Your task to perform on an android device: change alarm snooze length Image 0: 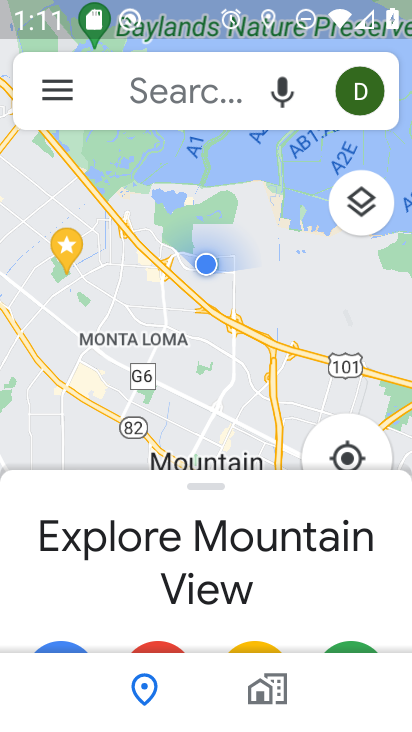
Step 0: press home button
Your task to perform on an android device: change alarm snooze length Image 1: 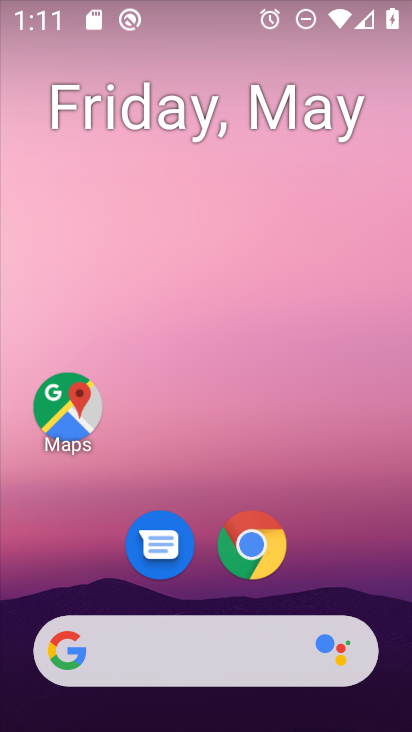
Step 1: drag from (330, 558) to (324, 211)
Your task to perform on an android device: change alarm snooze length Image 2: 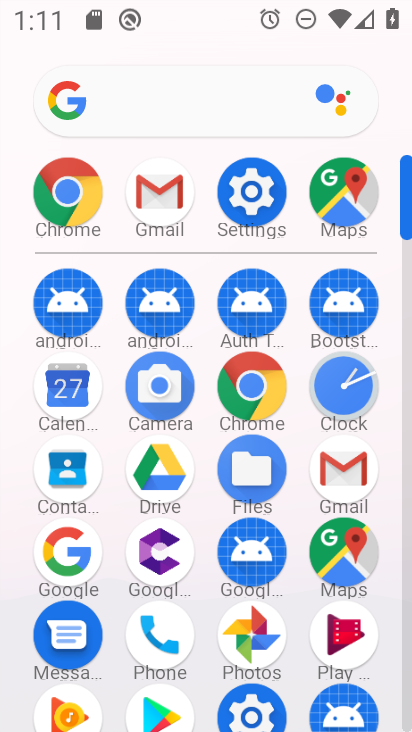
Step 2: click (333, 378)
Your task to perform on an android device: change alarm snooze length Image 3: 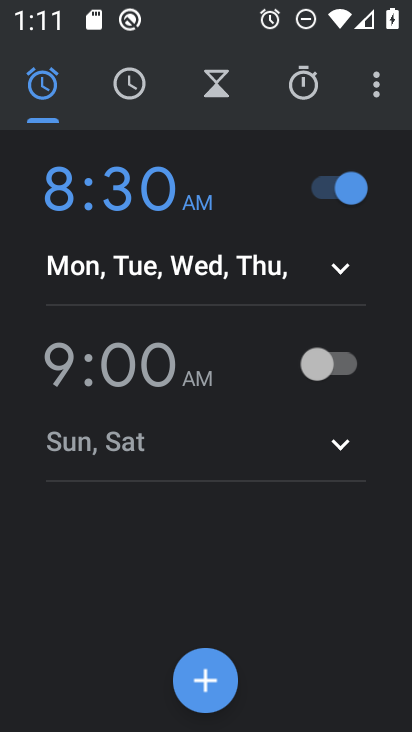
Step 3: click (367, 87)
Your task to perform on an android device: change alarm snooze length Image 4: 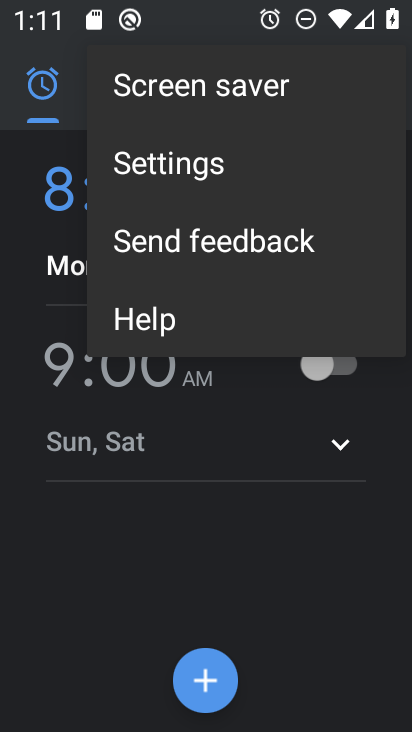
Step 4: click (204, 176)
Your task to perform on an android device: change alarm snooze length Image 5: 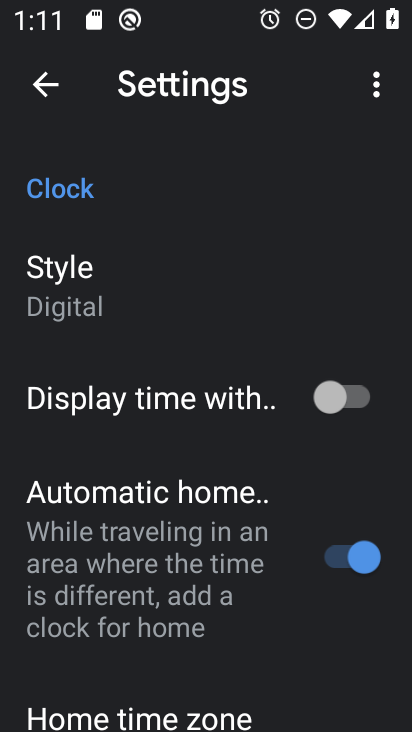
Step 5: drag from (191, 611) to (206, 262)
Your task to perform on an android device: change alarm snooze length Image 6: 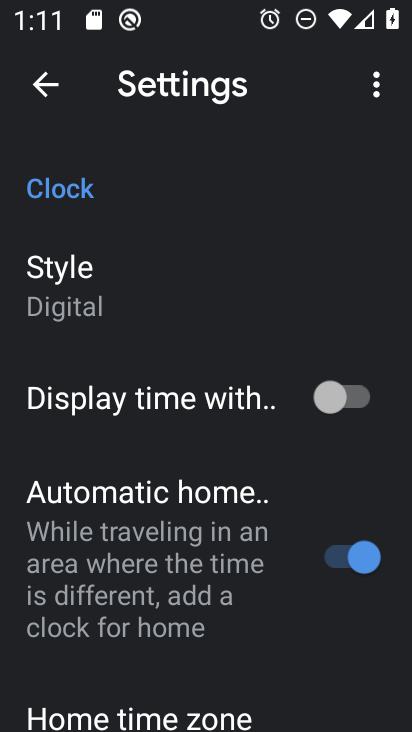
Step 6: drag from (157, 571) to (180, 280)
Your task to perform on an android device: change alarm snooze length Image 7: 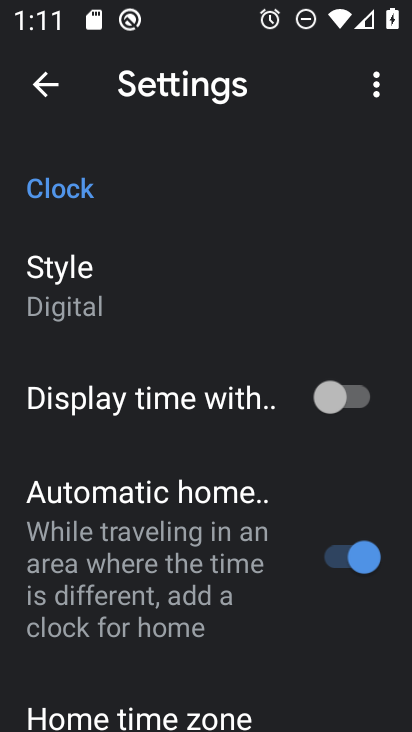
Step 7: drag from (175, 611) to (201, 234)
Your task to perform on an android device: change alarm snooze length Image 8: 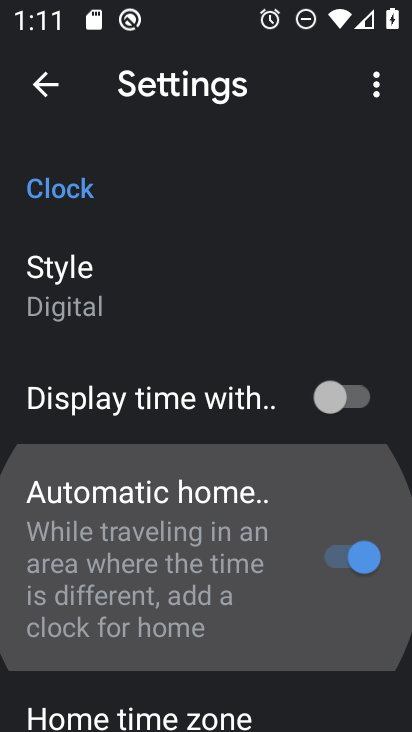
Step 8: drag from (176, 545) to (238, 193)
Your task to perform on an android device: change alarm snooze length Image 9: 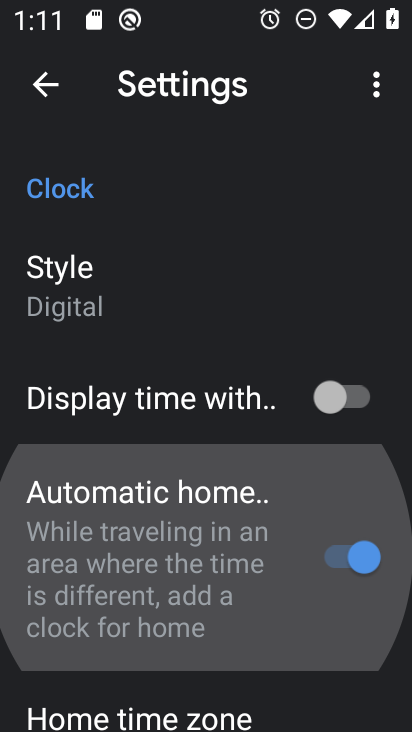
Step 9: drag from (199, 496) to (223, 129)
Your task to perform on an android device: change alarm snooze length Image 10: 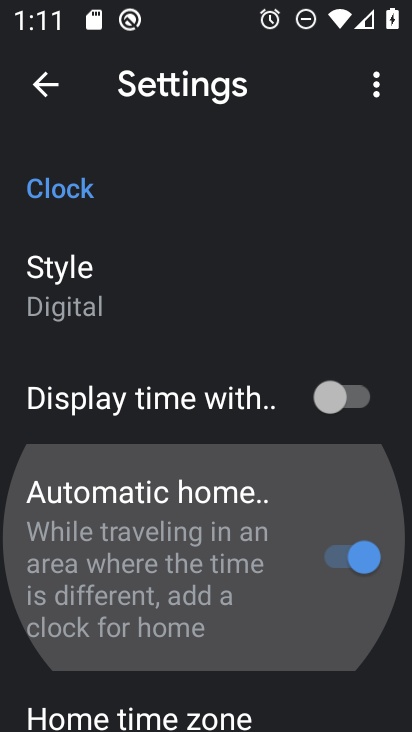
Step 10: drag from (171, 518) to (195, 159)
Your task to perform on an android device: change alarm snooze length Image 11: 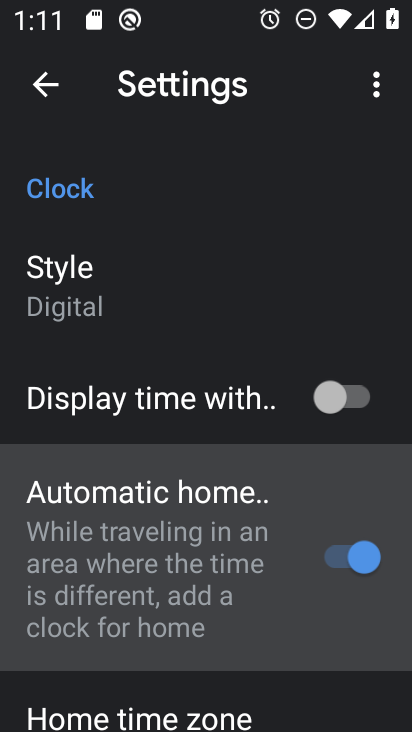
Step 11: drag from (155, 510) to (206, 202)
Your task to perform on an android device: change alarm snooze length Image 12: 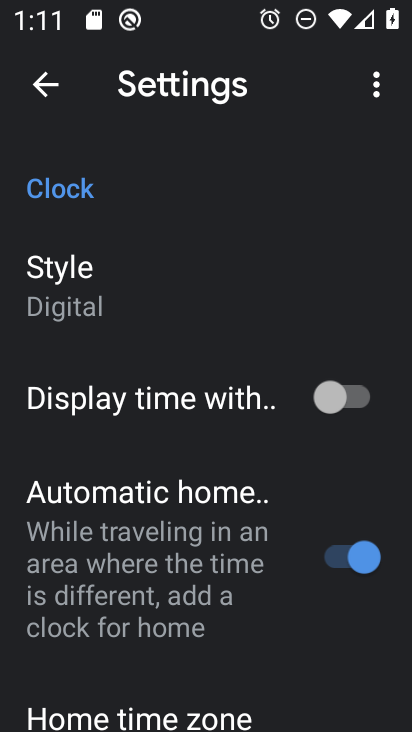
Step 12: drag from (250, 663) to (259, 200)
Your task to perform on an android device: change alarm snooze length Image 13: 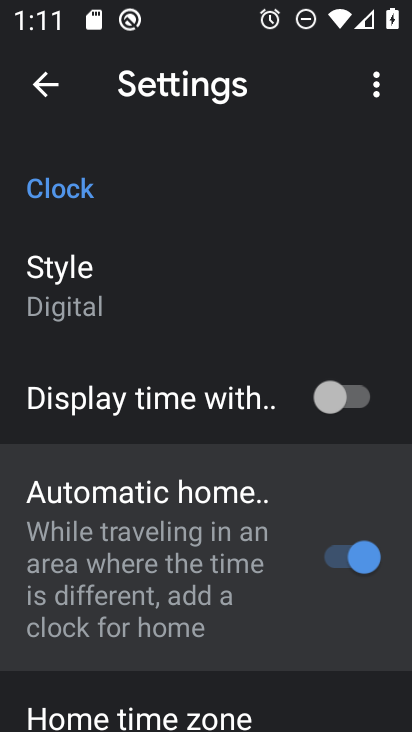
Step 13: drag from (187, 512) to (215, 181)
Your task to perform on an android device: change alarm snooze length Image 14: 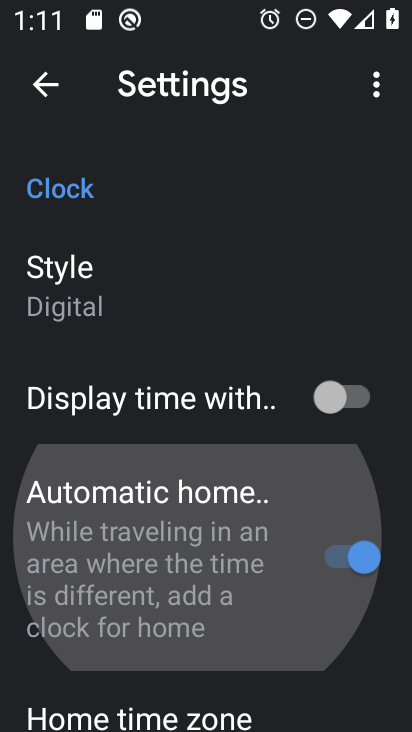
Step 14: drag from (187, 424) to (209, 131)
Your task to perform on an android device: change alarm snooze length Image 15: 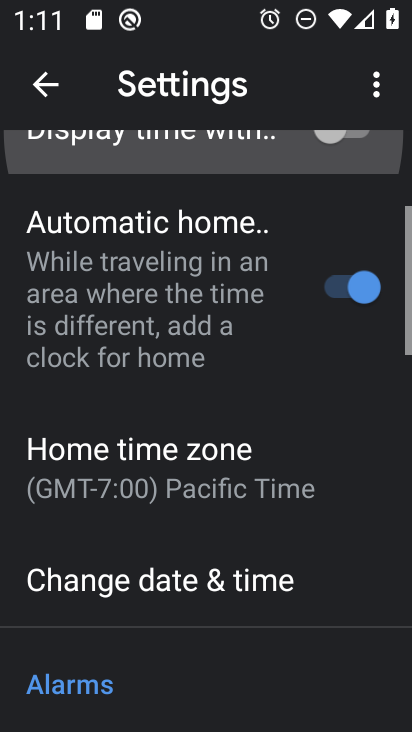
Step 15: drag from (192, 407) to (203, 179)
Your task to perform on an android device: change alarm snooze length Image 16: 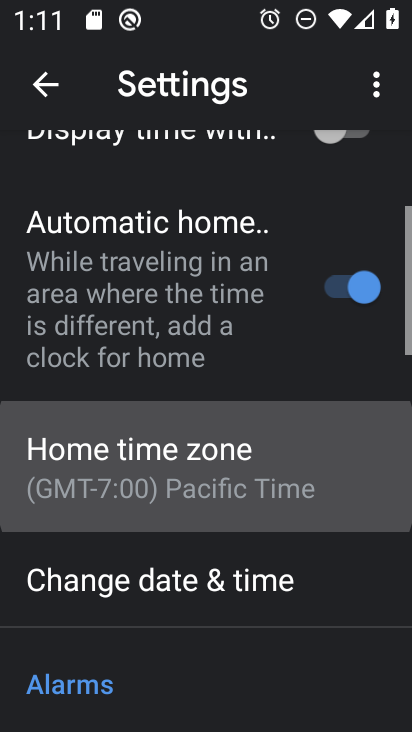
Step 16: drag from (182, 197) to (191, 131)
Your task to perform on an android device: change alarm snooze length Image 17: 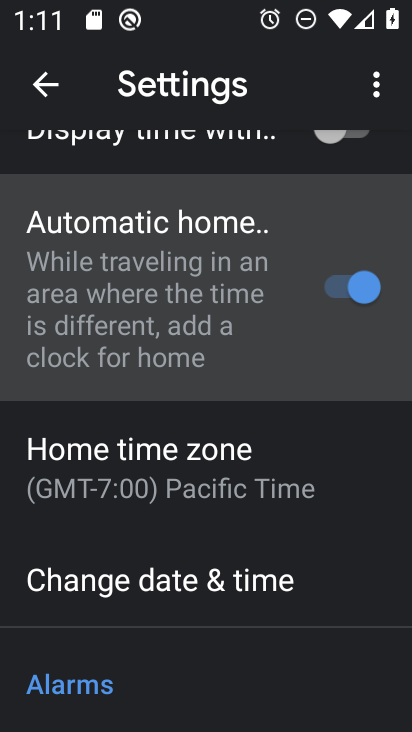
Step 17: drag from (203, 473) to (246, 233)
Your task to perform on an android device: change alarm snooze length Image 18: 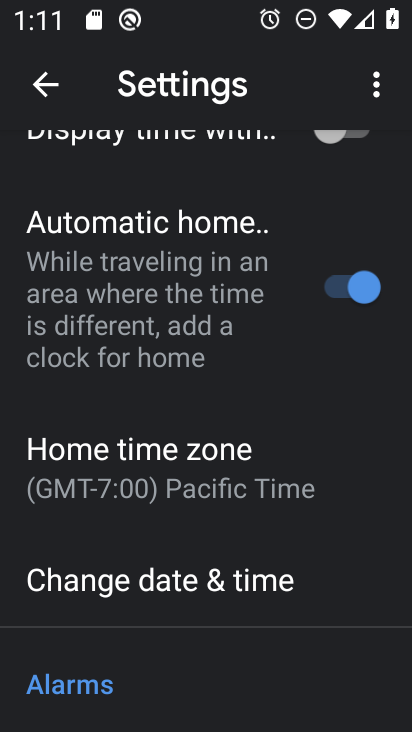
Step 18: drag from (224, 640) to (290, 257)
Your task to perform on an android device: change alarm snooze length Image 19: 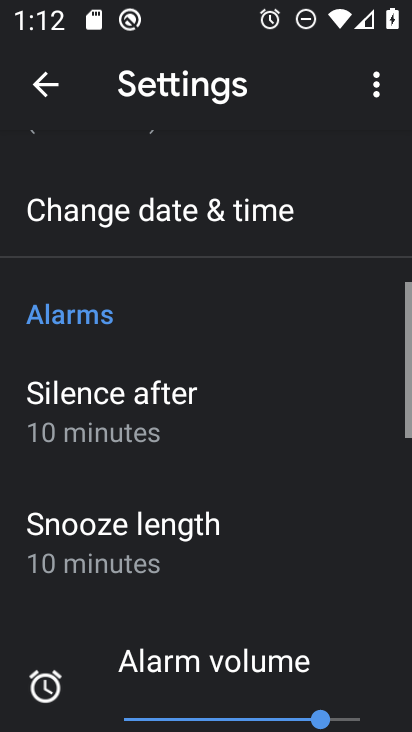
Step 19: drag from (226, 603) to (238, 226)
Your task to perform on an android device: change alarm snooze length Image 20: 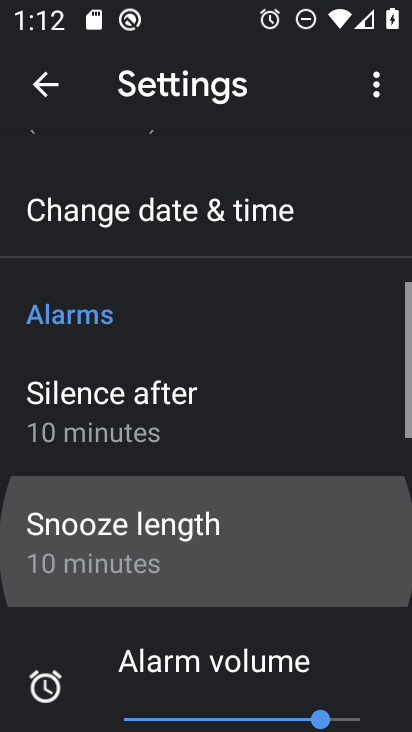
Step 20: drag from (135, 599) to (162, 196)
Your task to perform on an android device: change alarm snooze length Image 21: 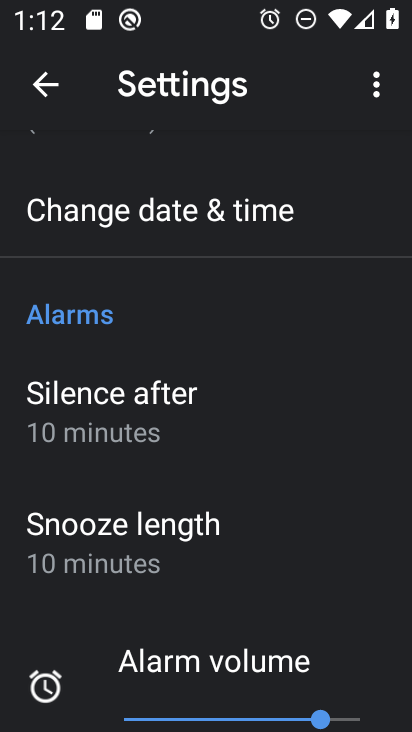
Step 21: click (156, 562)
Your task to perform on an android device: change alarm snooze length Image 22: 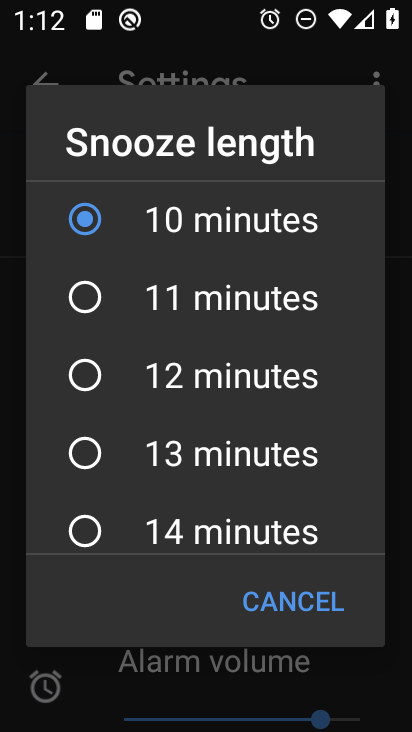
Step 22: click (176, 458)
Your task to perform on an android device: change alarm snooze length Image 23: 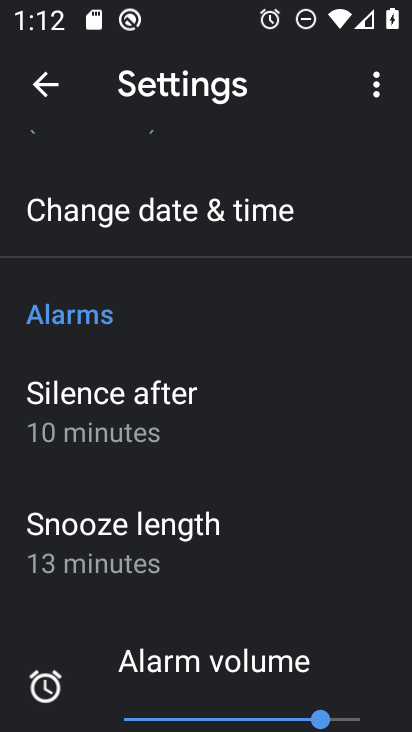
Step 23: task complete